Your task to perform on an android device: open device folders in google photos Image 0: 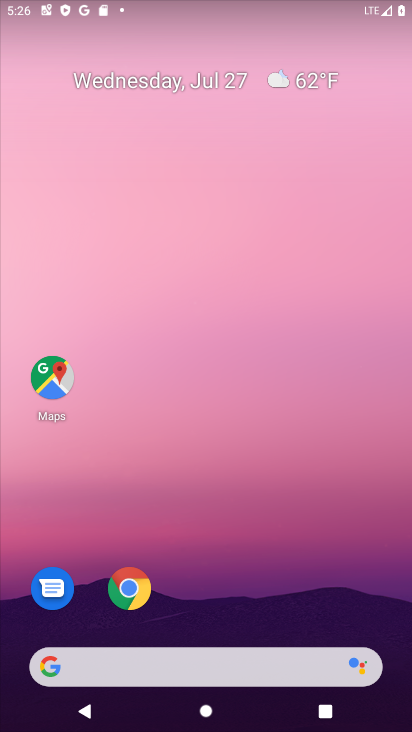
Step 0: click (125, 668)
Your task to perform on an android device: open device folders in google photos Image 1: 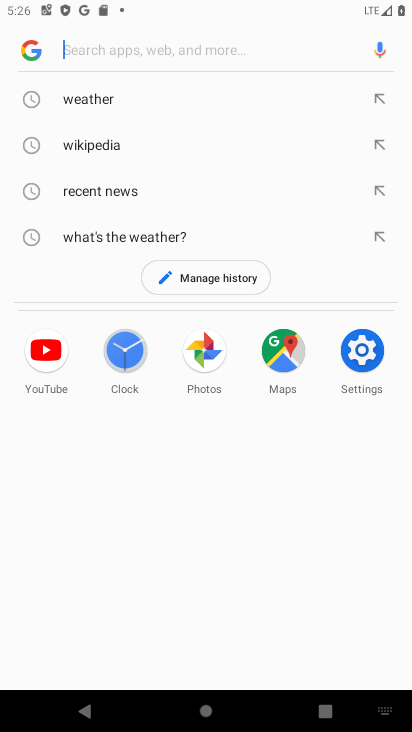
Step 1: press home button
Your task to perform on an android device: open device folders in google photos Image 2: 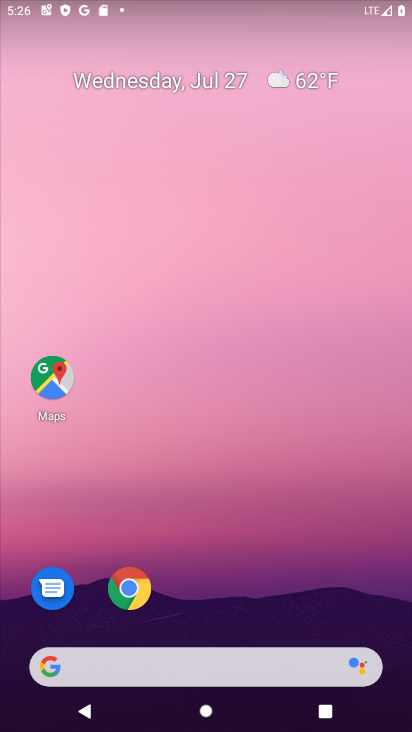
Step 2: drag from (183, 536) to (183, 151)
Your task to perform on an android device: open device folders in google photos Image 3: 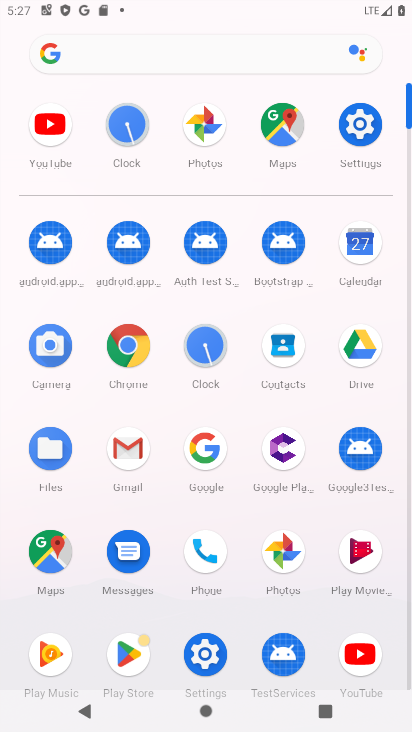
Step 3: click (295, 556)
Your task to perform on an android device: open device folders in google photos Image 4: 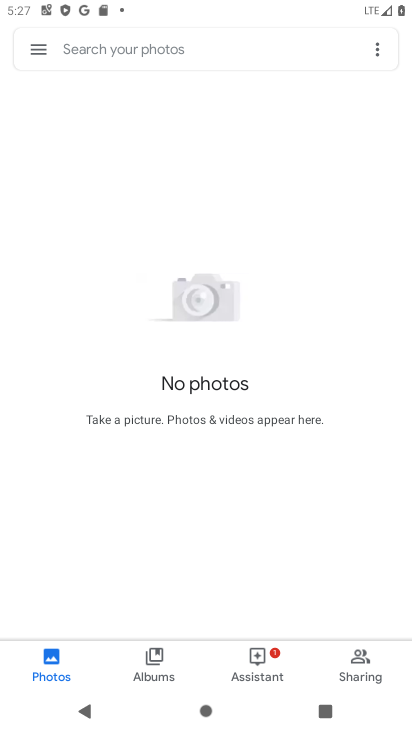
Step 4: click (35, 52)
Your task to perform on an android device: open device folders in google photos Image 5: 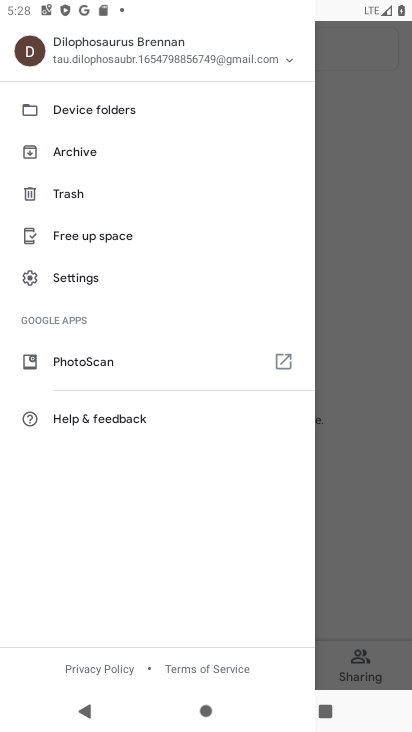
Step 5: click (83, 120)
Your task to perform on an android device: open device folders in google photos Image 6: 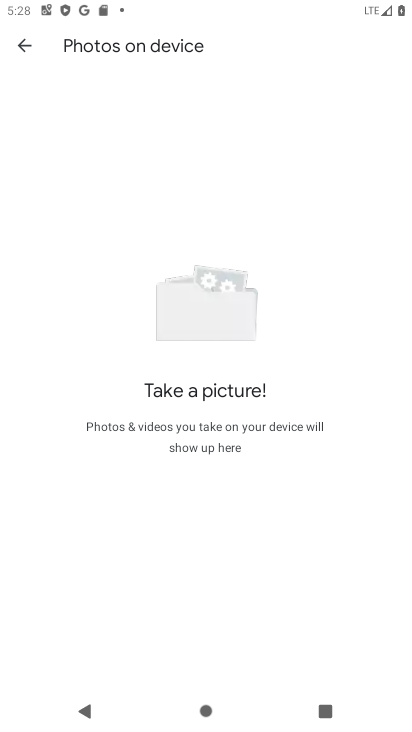
Step 6: task complete